Your task to perform on an android device: star an email in the gmail app Image 0: 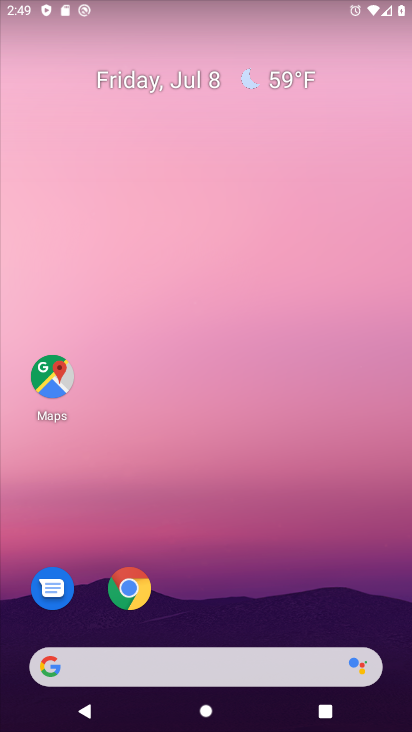
Step 0: drag from (207, 637) to (217, 590)
Your task to perform on an android device: star an email in the gmail app Image 1: 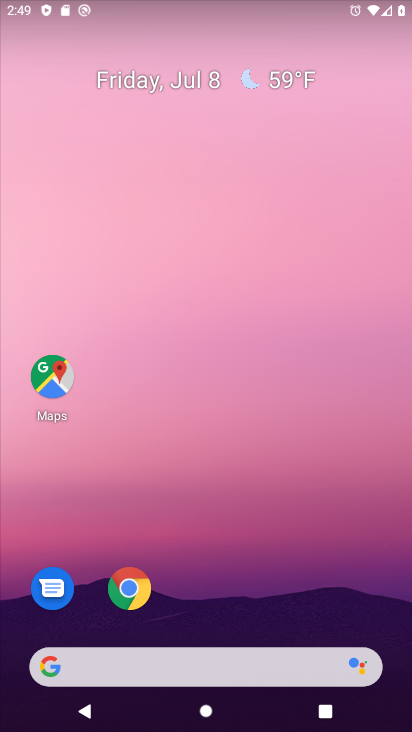
Step 1: drag from (228, 630) to (235, 123)
Your task to perform on an android device: star an email in the gmail app Image 2: 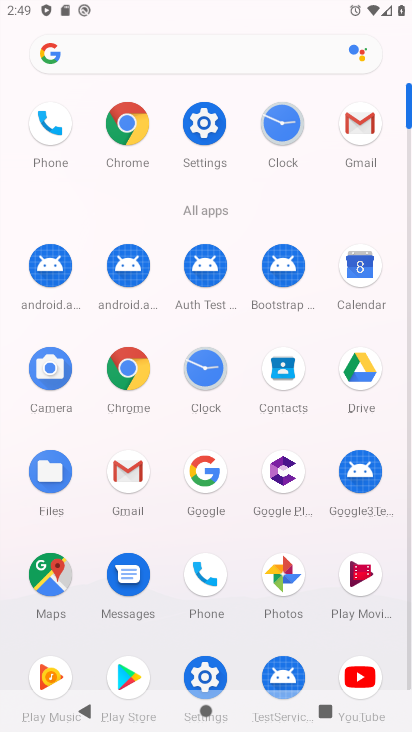
Step 2: click (105, 489)
Your task to perform on an android device: star an email in the gmail app Image 3: 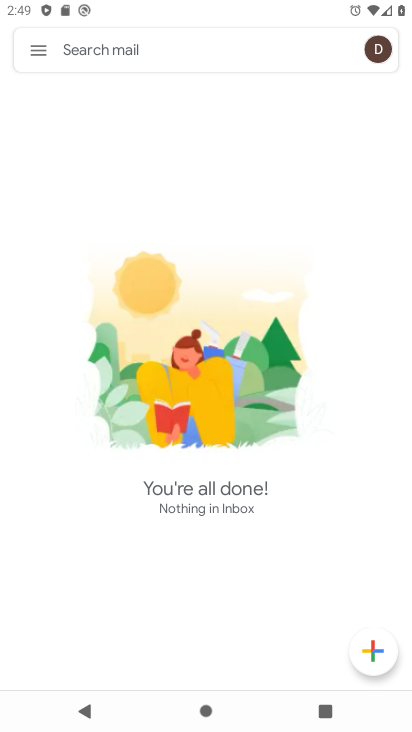
Step 3: task complete